Your task to perform on an android device: change the upload size in google photos Image 0: 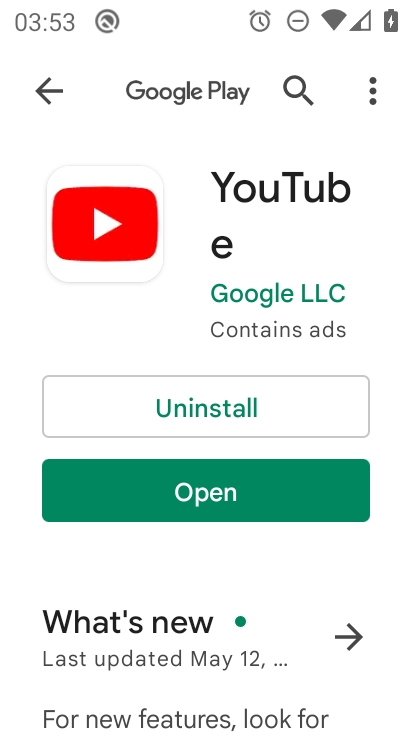
Step 0: press home button
Your task to perform on an android device: change the upload size in google photos Image 1: 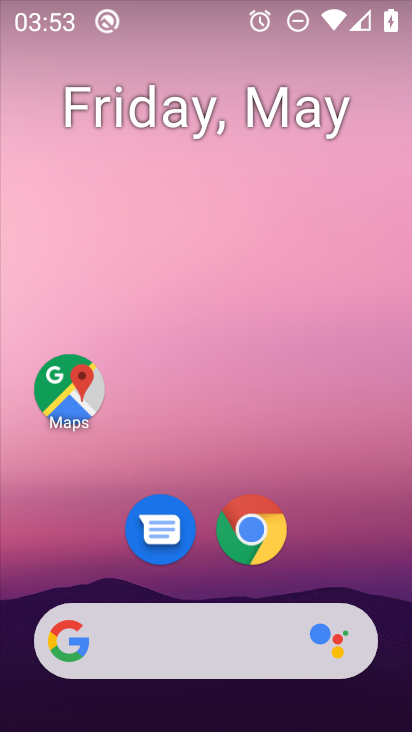
Step 1: drag from (402, 704) to (332, 363)
Your task to perform on an android device: change the upload size in google photos Image 2: 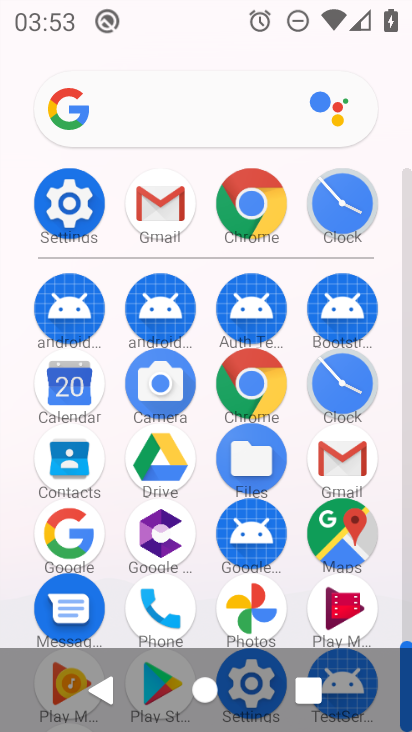
Step 2: click (251, 600)
Your task to perform on an android device: change the upload size in google photos Image 3: 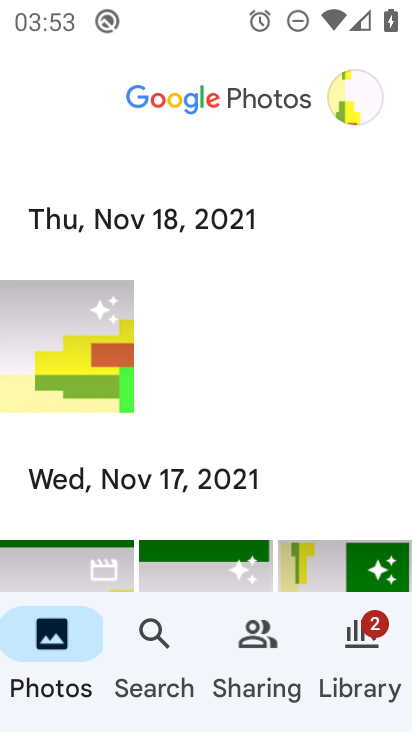
Step 3: task complete